Your task to perform on an android device: open app "ZOOM Cloud Meetings" (install if not already installed) and go to login screen Image 0: 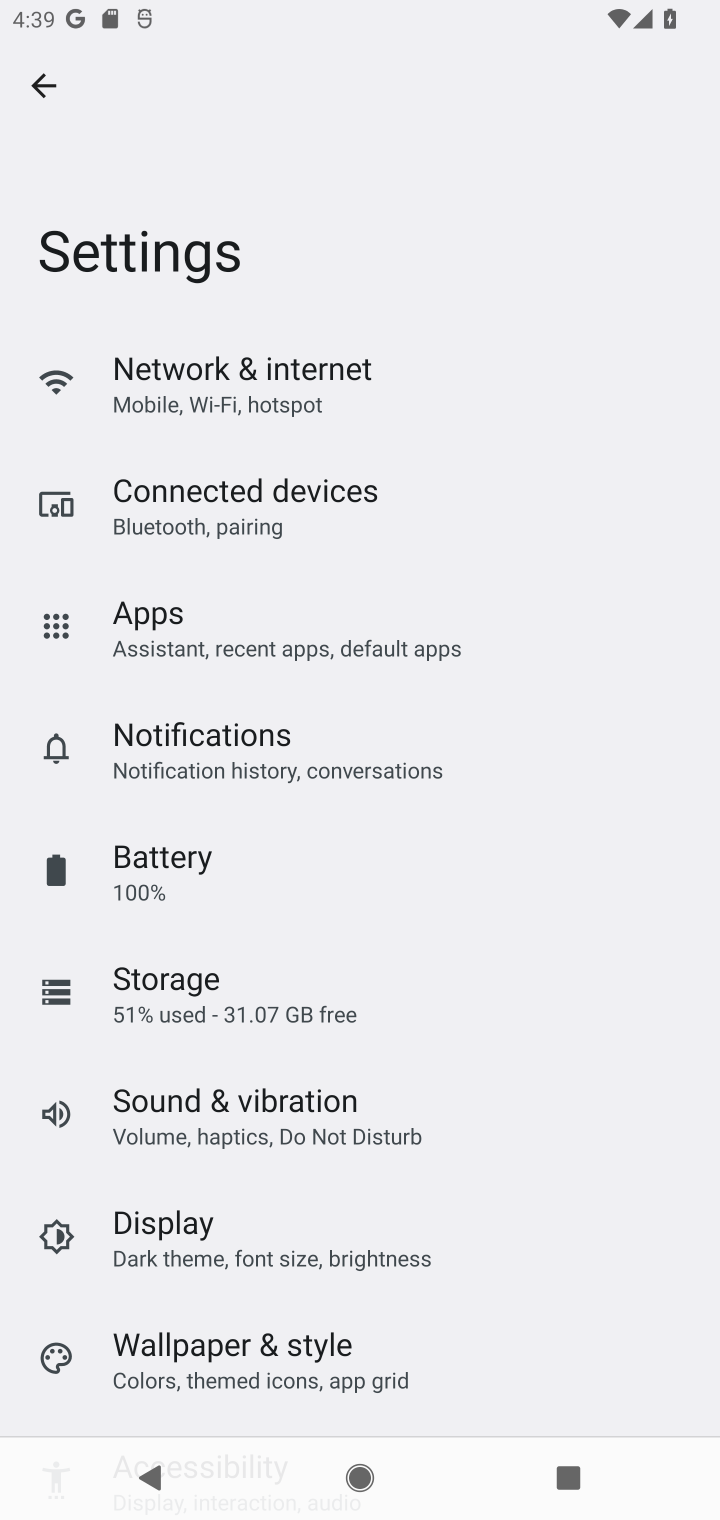
Step 0: task complete